Your task to perform on an android device: change notification settings in the gmail app Image 0: 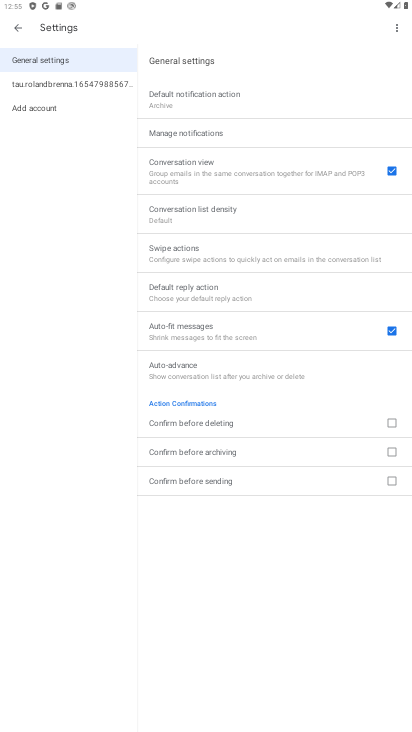
Step 0: press home button
Your task to perform on an android device: change notification settings in the gmail app Image 1: 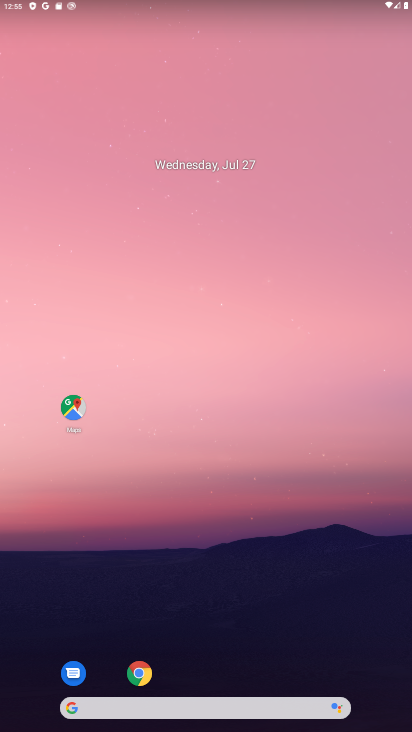
Step 1: drag from (200, 603) to (217, 17)
Your task to perform on an android device: change notification settings in the gmail app Image 2: 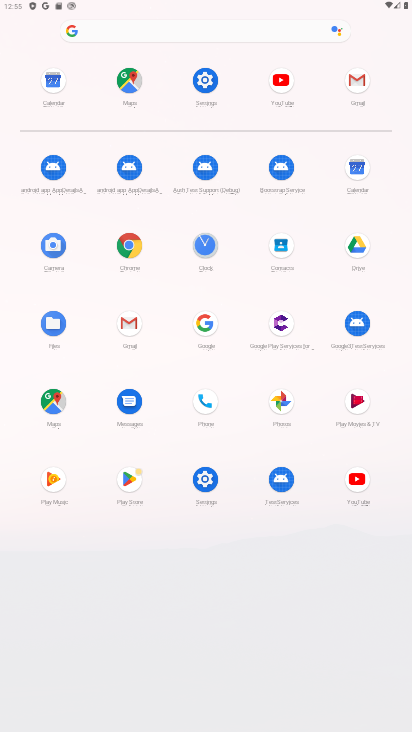
Step 2: click (358, 84)
Your task to perform on an android device: change notification settings in the gmail app Image 3: 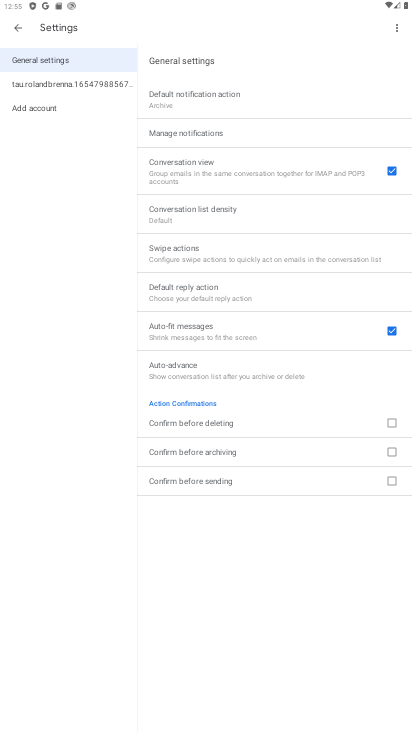
Step 3: click (195, 138)
Your task to perform on an android device: change notification settings in the gmail app Image 4: 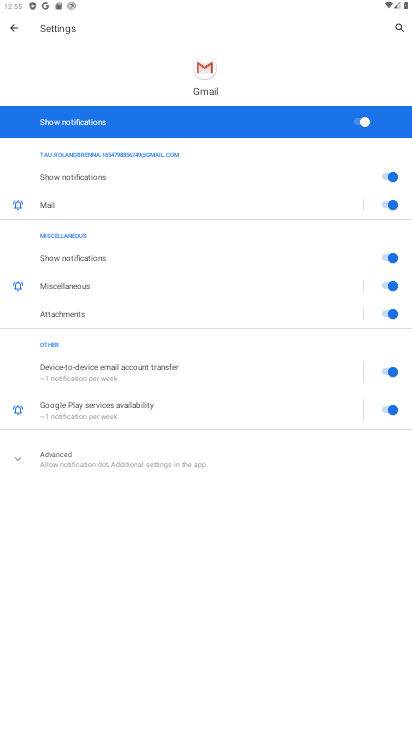
Step 4: click (368, 133)
Your task to perform on an android device: change notification settings in the gmail app Image 5: 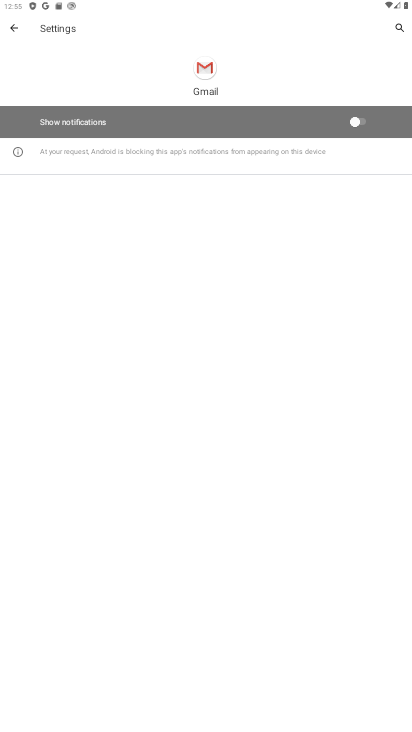
Step 5: task complete